Your task to perform on an android device: check the backup settings in the google photos Image 0: 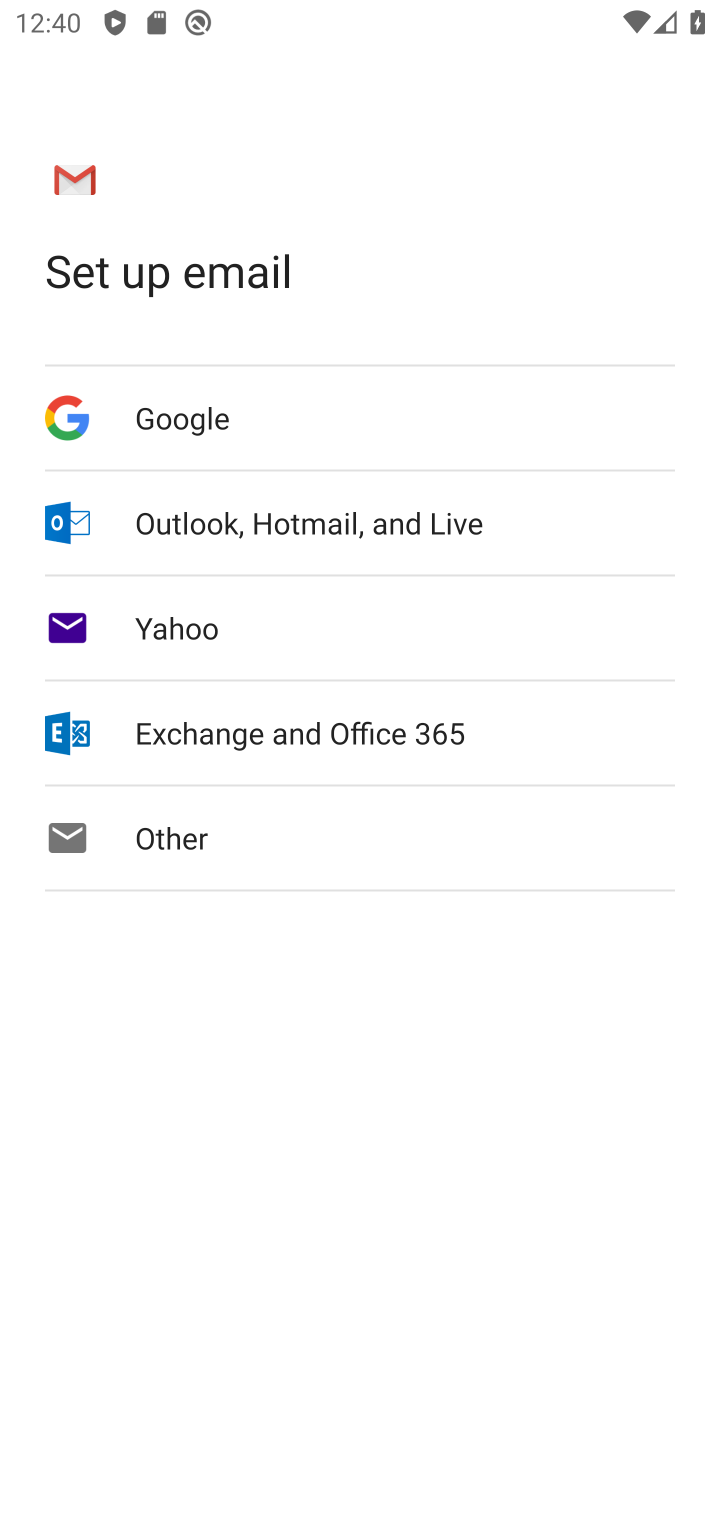
Step 0: press home button
Your task to perform on an android device: check the backup settings in the google photos Image 1: 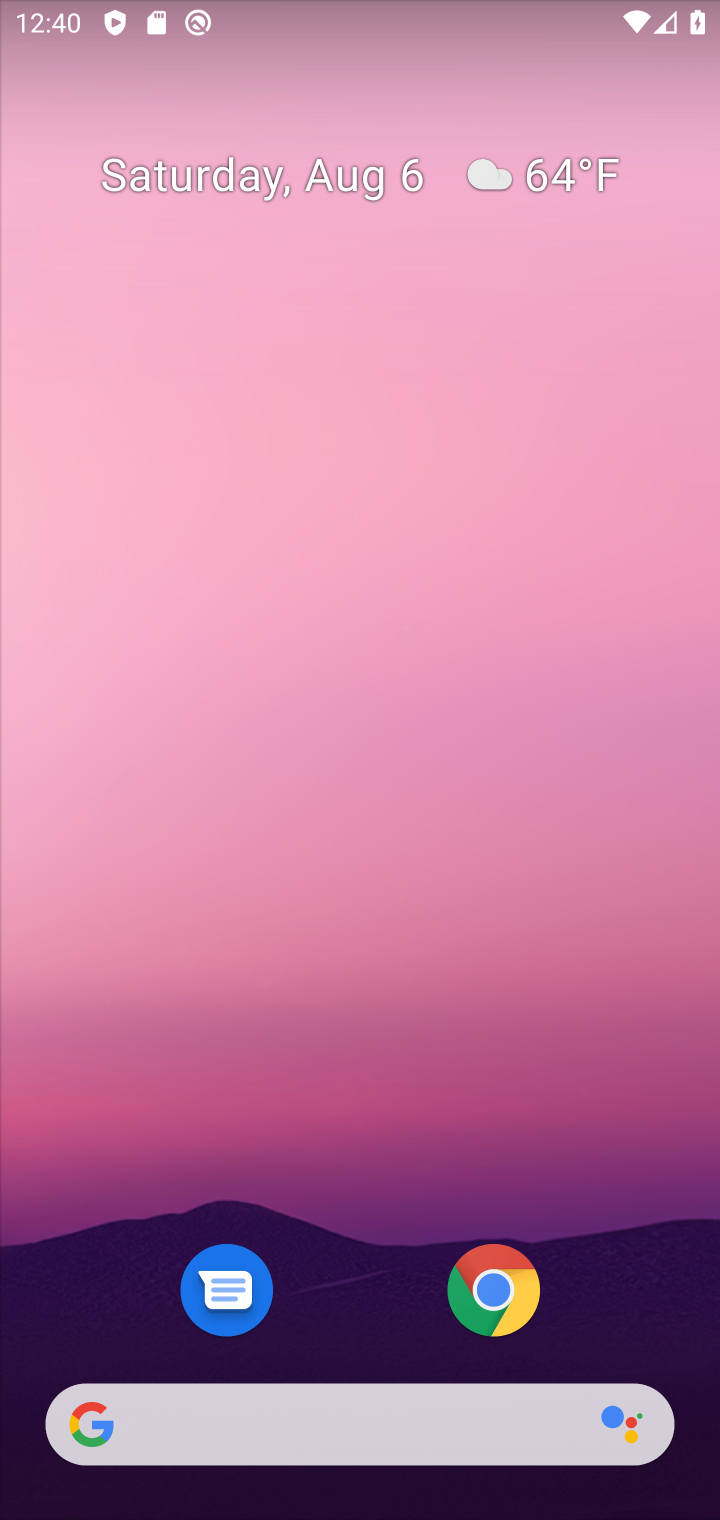
Step 1: drag from (413, 1375) to (377, 124)
Your task to perform on an android device: check the backup settings in the google photos Image 2: 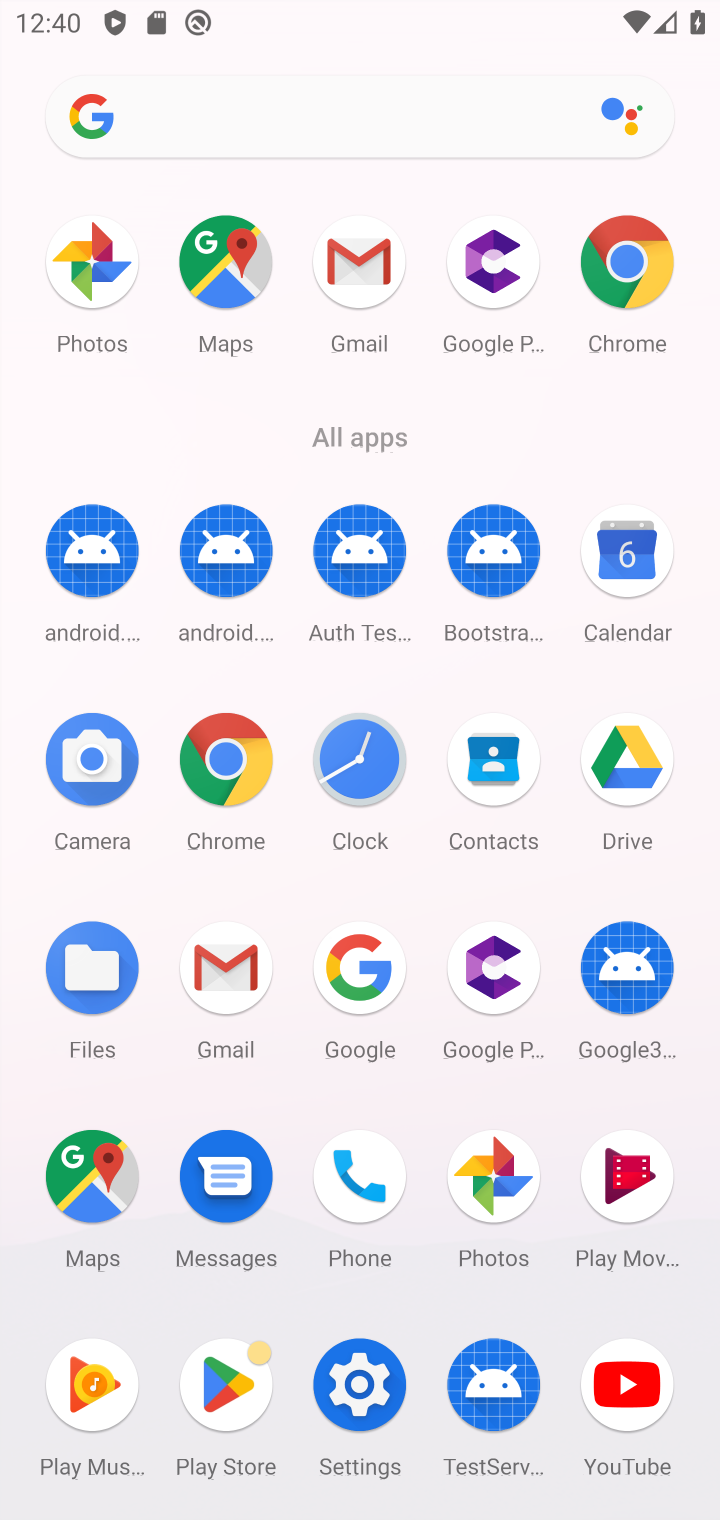
Step 2: click (489, 1189)
Your task to perform on an android device: check the backup settings in the google photos Image 3: 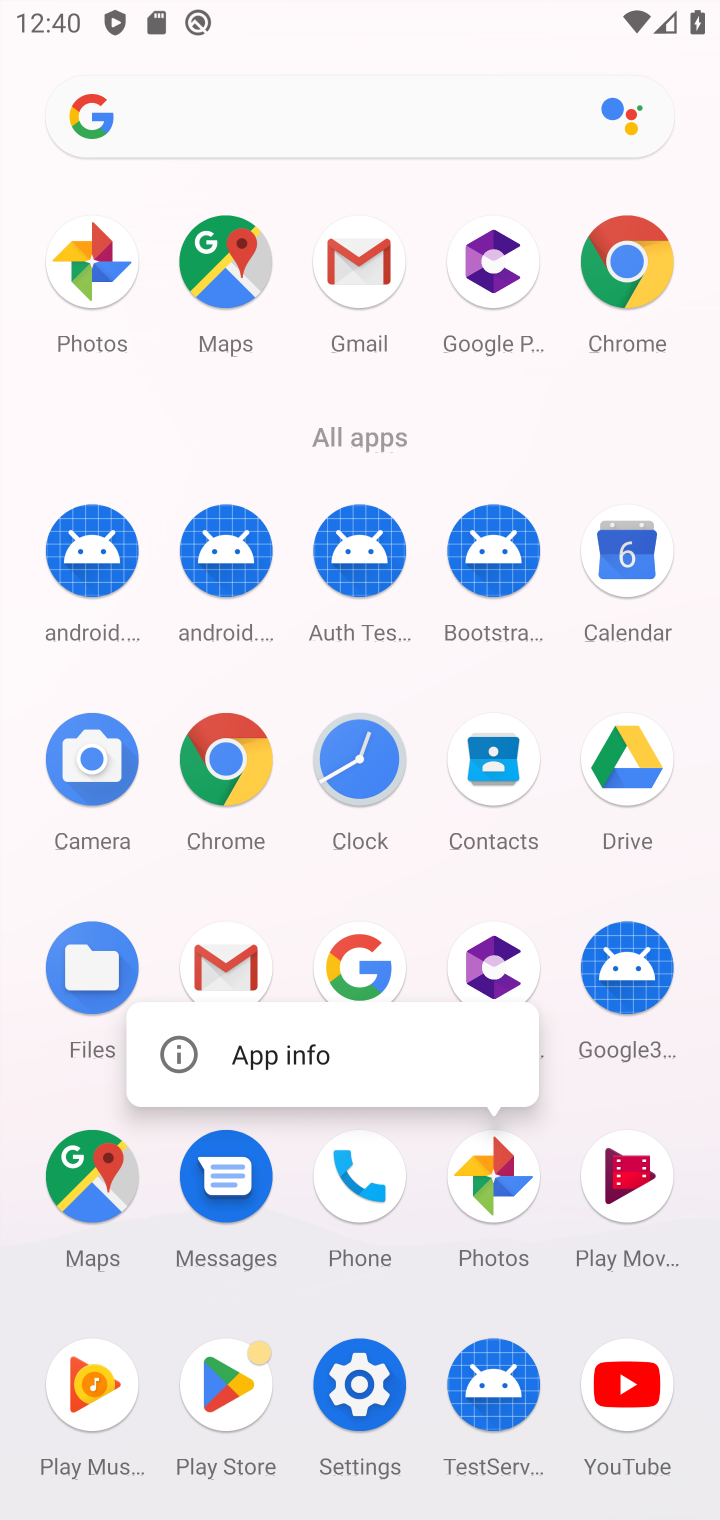
Step 3: click (487, 1187)
Your task to perform on an android device: check the backup settings in the google photos Image 4: 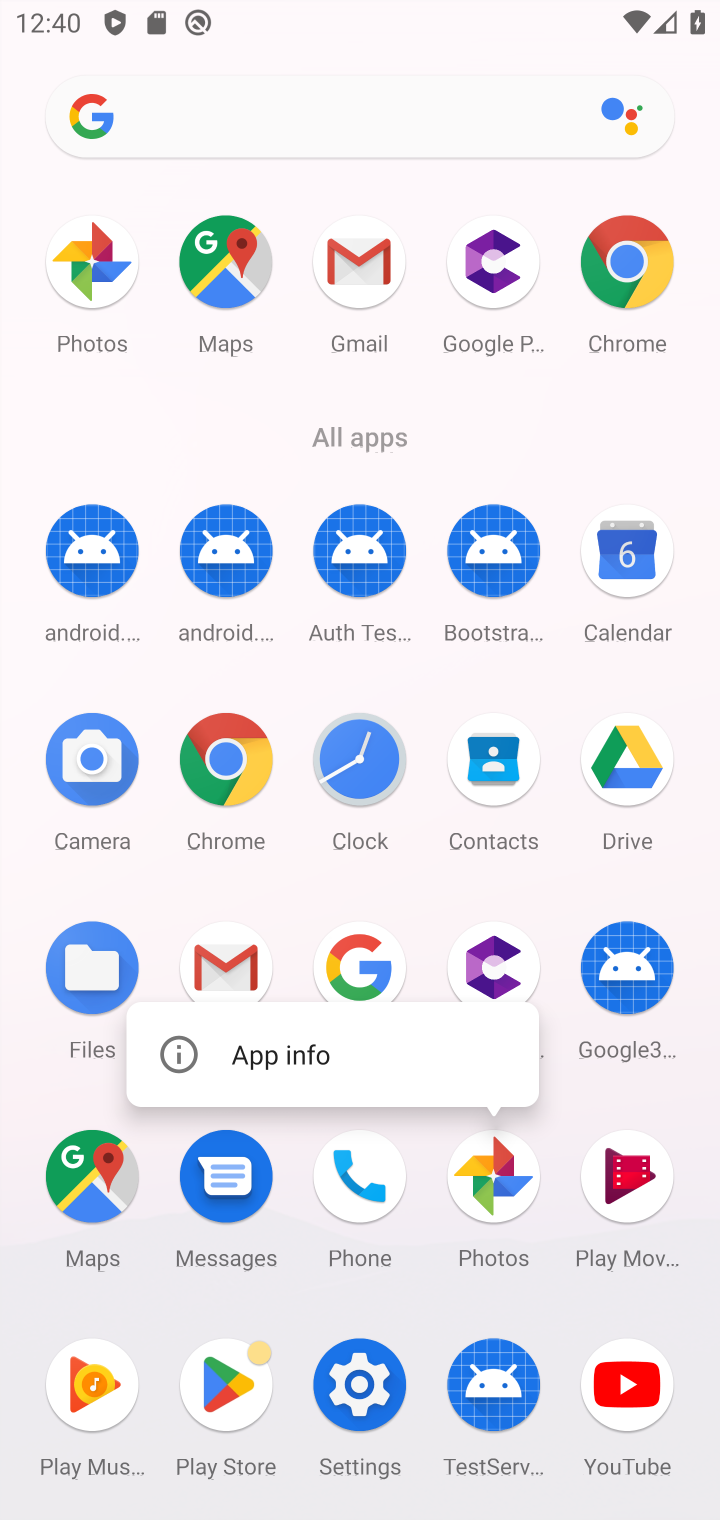
Step 4: click (487, 1187)
Your task to perform on an android device: check the backup settings in the google photos Image 5: 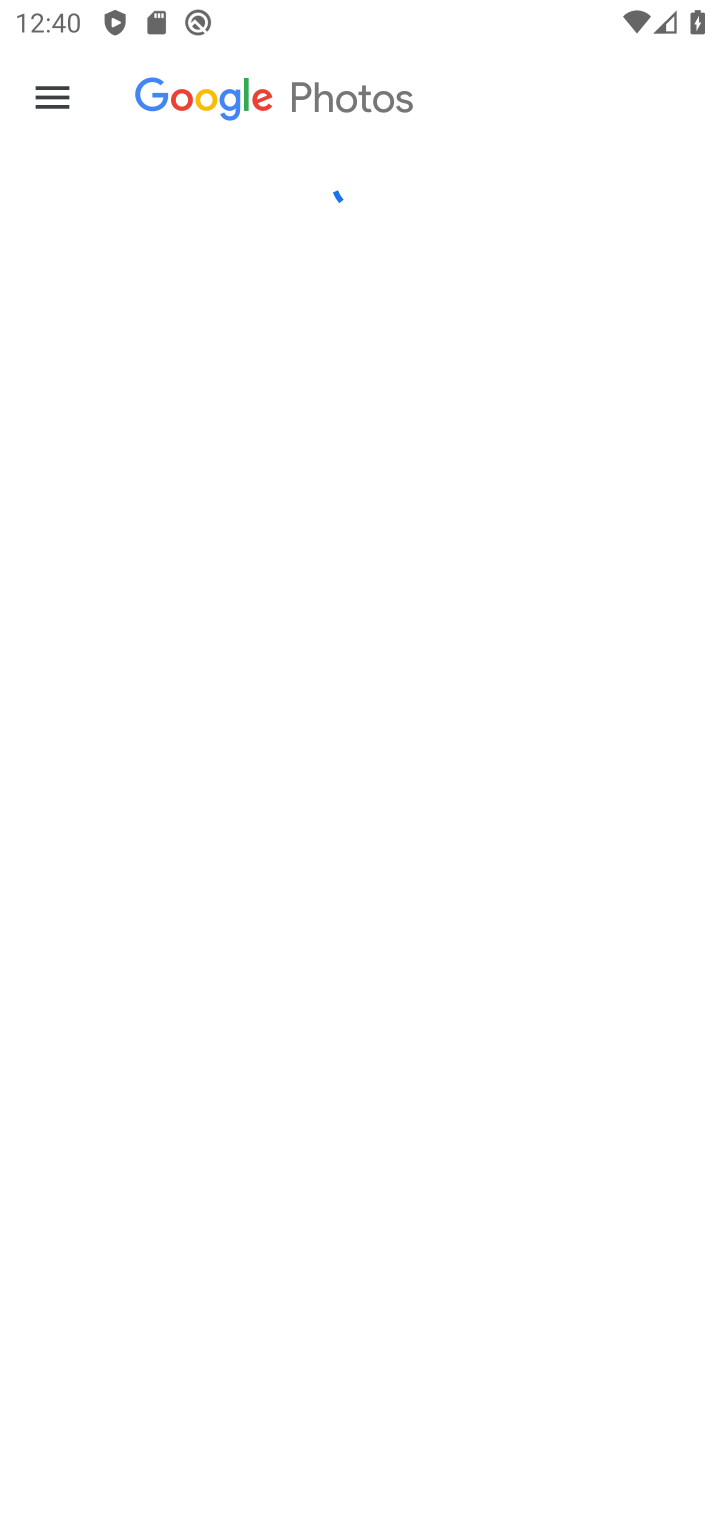
Step 5: click (34, 98)
Your task to perform on an android device: check the backup settings in the google photos Image 6: 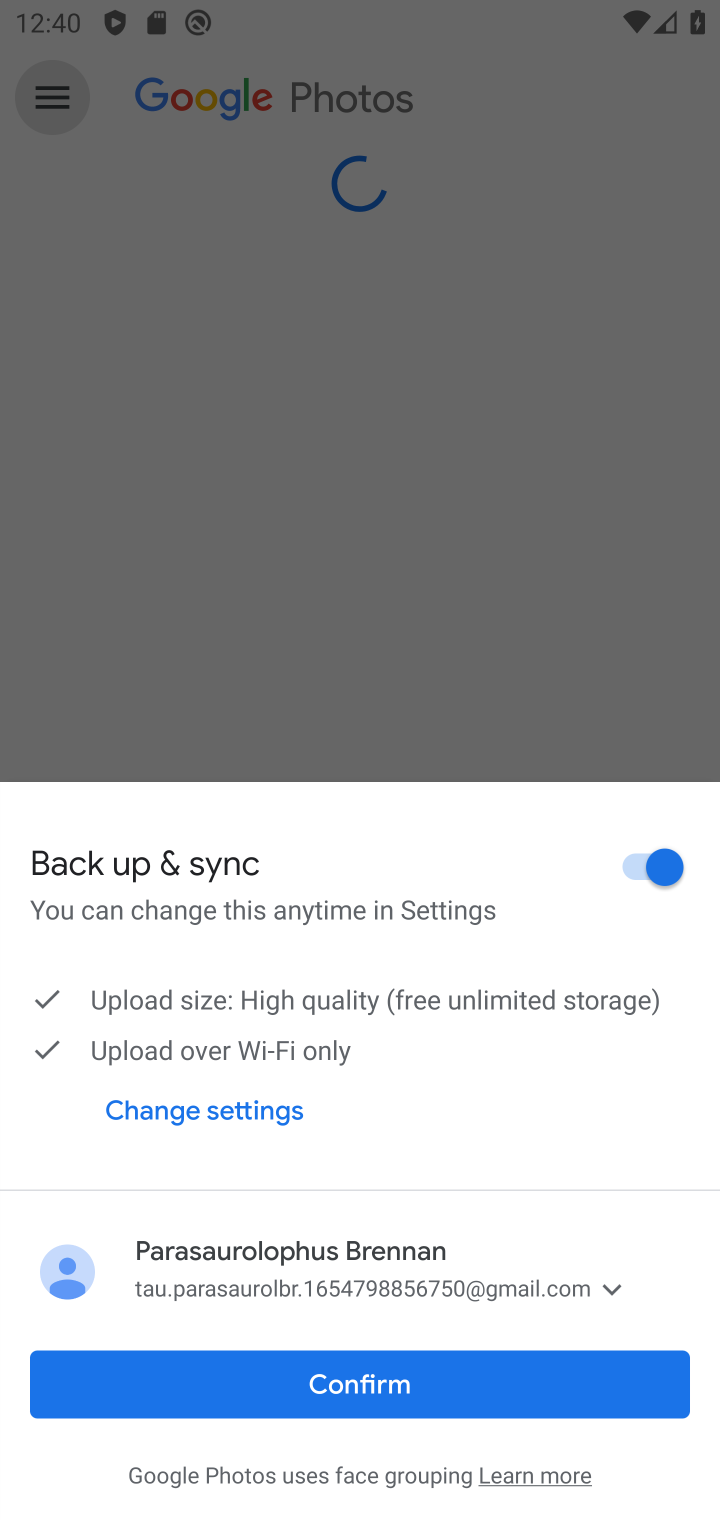
Step 6: click (246, 1356)
Your task to perform on an android device: check the backup settings in the google photos Image 7: 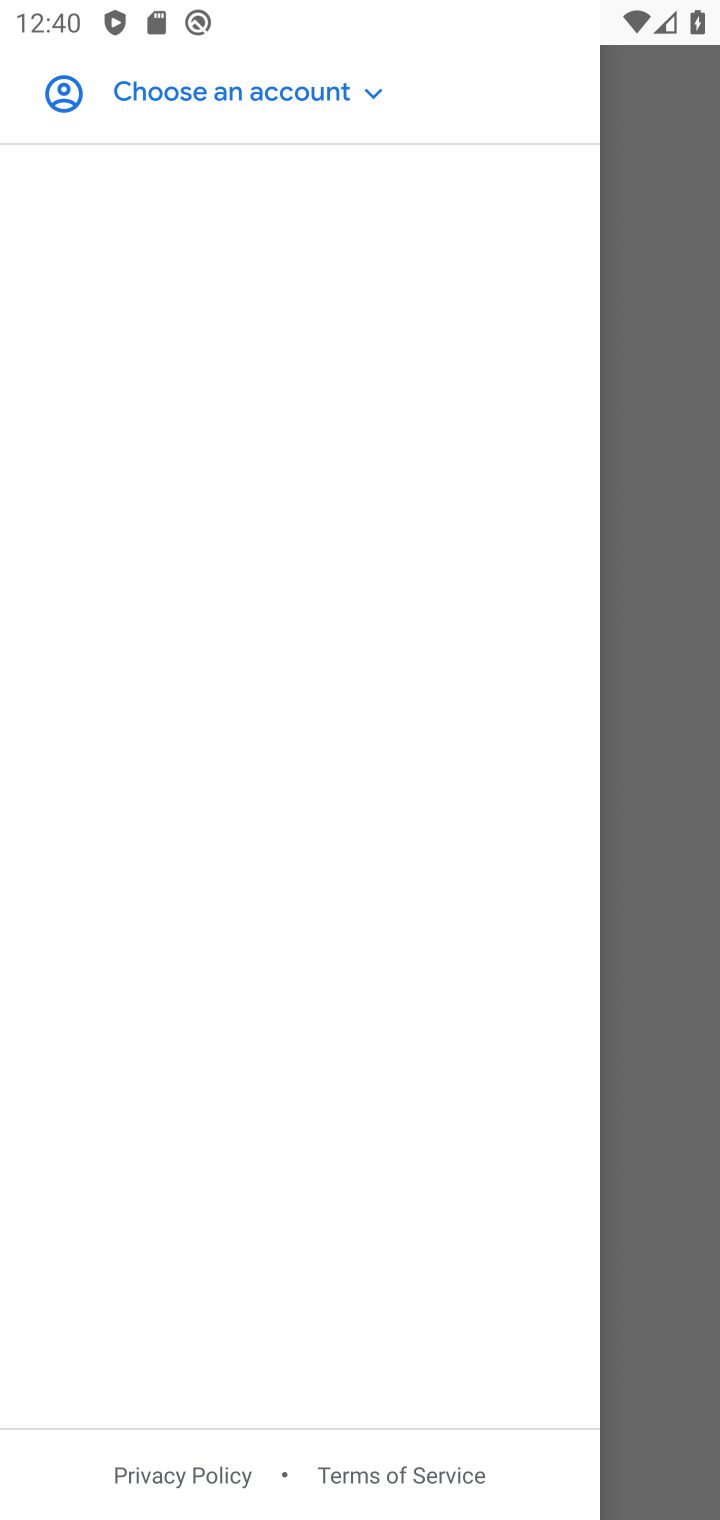
Step 7: click (235, 102)
Your task to perform on an android device: check the backup settings in the google photos Image 8: 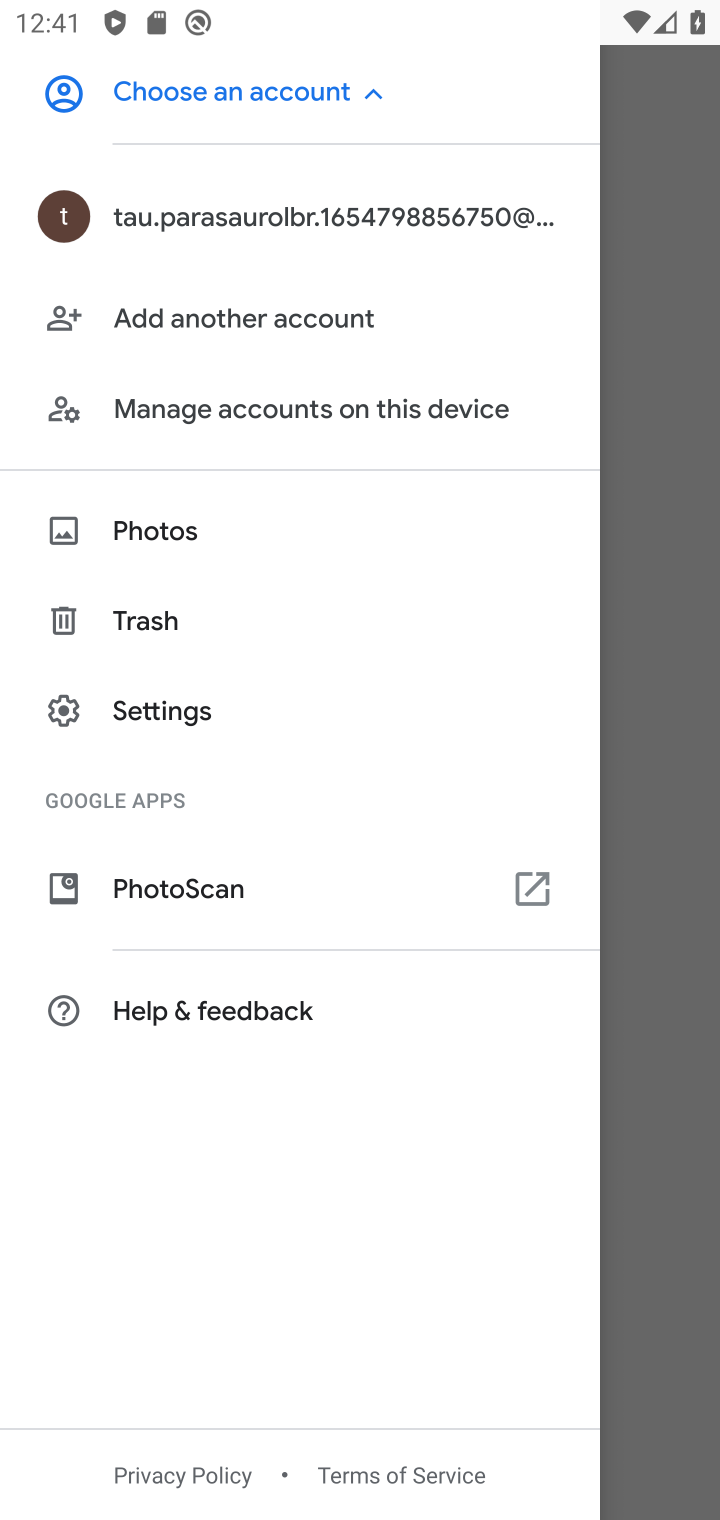
Step 8: click (178, 204)
Your task to perform on an android device: check the backup settings in the google photos Image 9: 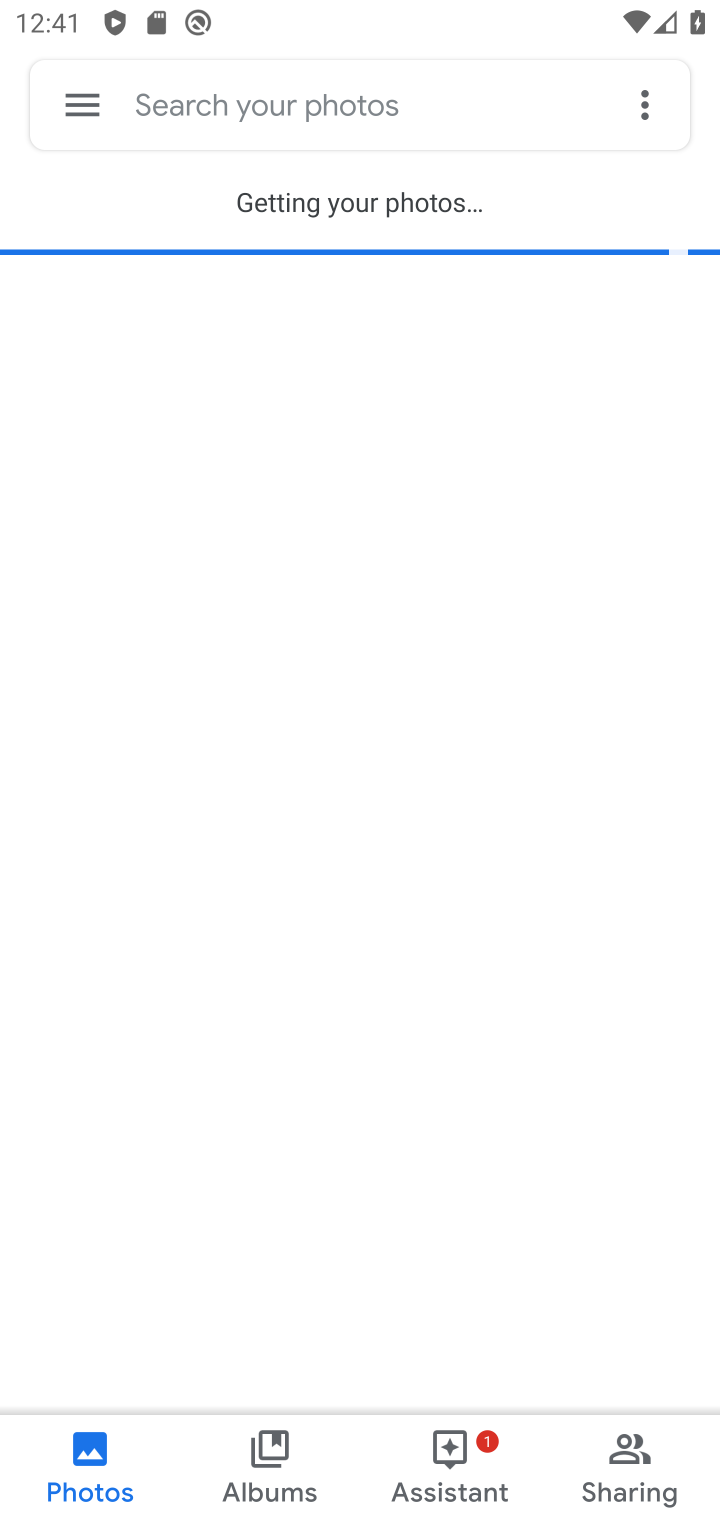
Step 9: task complete